Your task to perform on an android device: Is it going to rain tomorrow? Image 0: 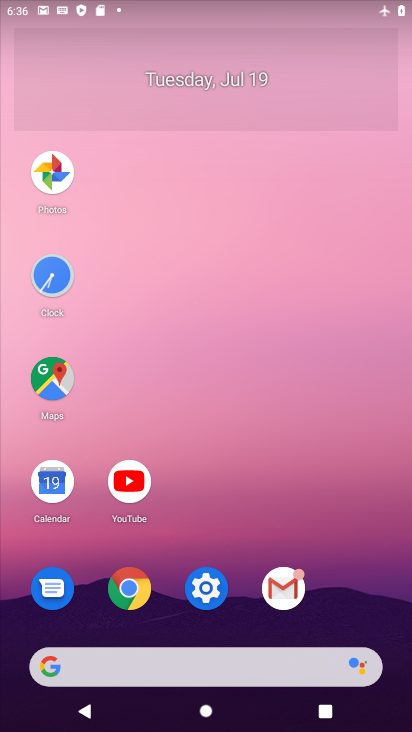
Step 0: click (60, 472)
Your task to perform on an android device: Is it going to rain tomorrow? Image 1: 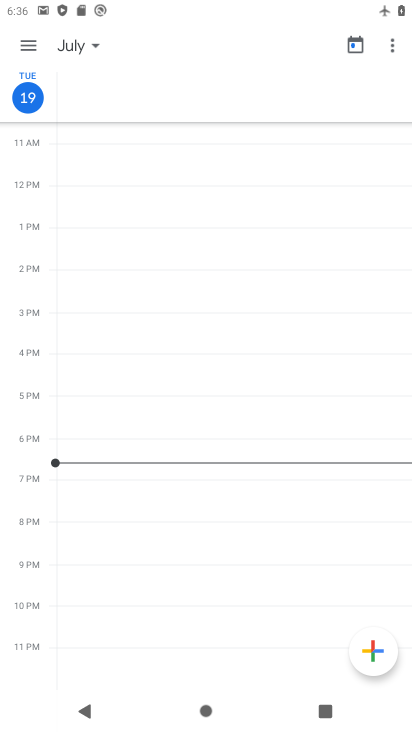
Step 1: press home button
Your task to perform on an android device: Is it going to rain tomorrow? Image 2: 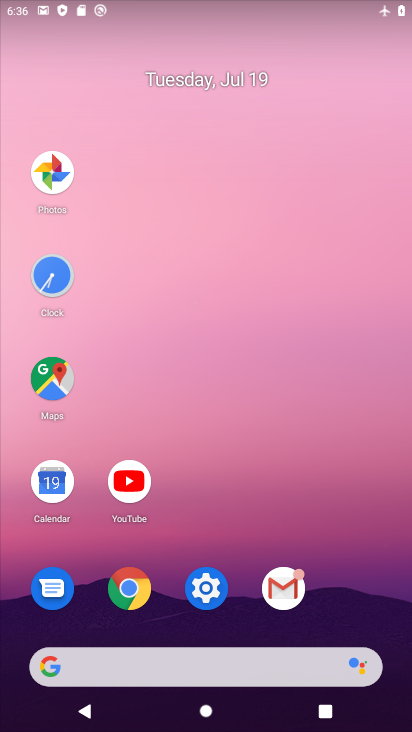
Step 2: click (159, 674)
Your task to perform on an android device: Is it going to rain tomorrow? Image 3: 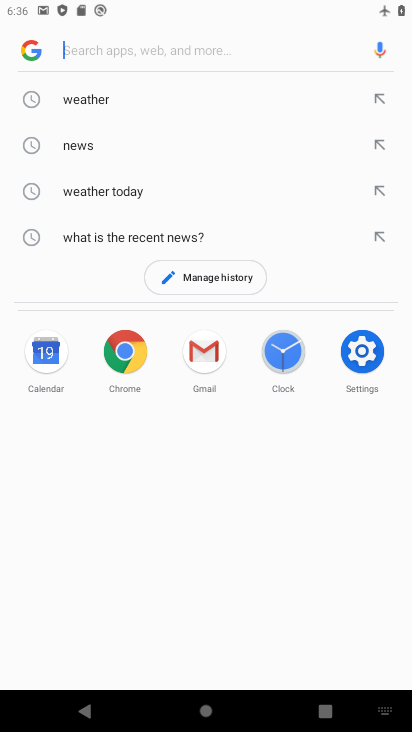
Step 3: click (85, 97)
Your task to perform on an android device: Is it going to rain tomorrow? Image 4: 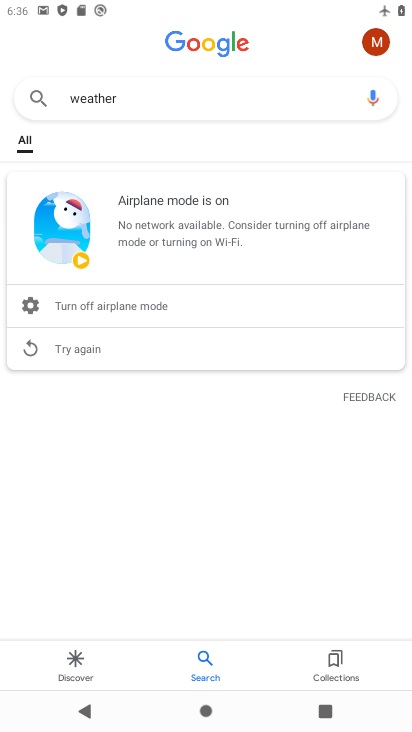
Step 4: task complete